Your task to perform on an android device: Show me popular games on the Play Store Image 0: 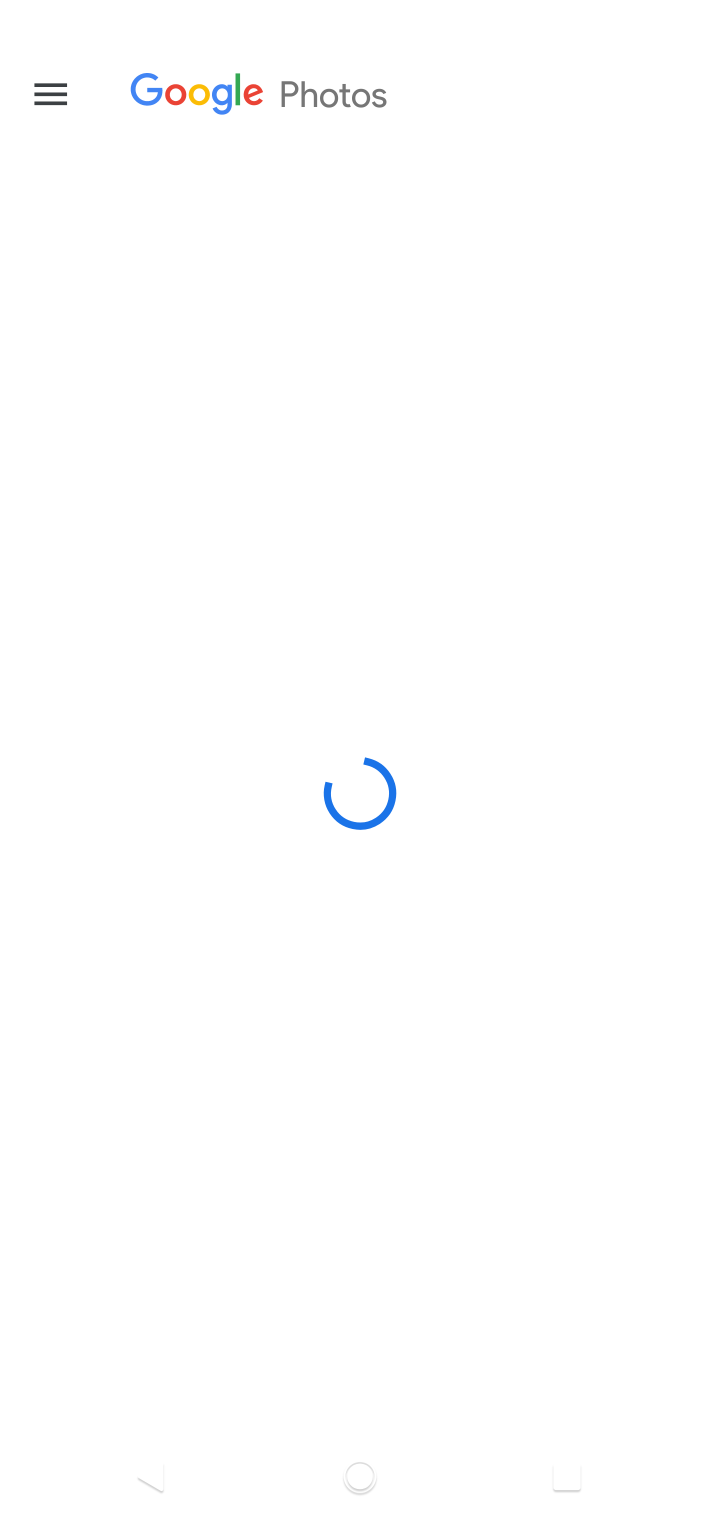
Step 0: press home button
Your task to perform on an android device: Show me popular games on the Play Store Image 1: 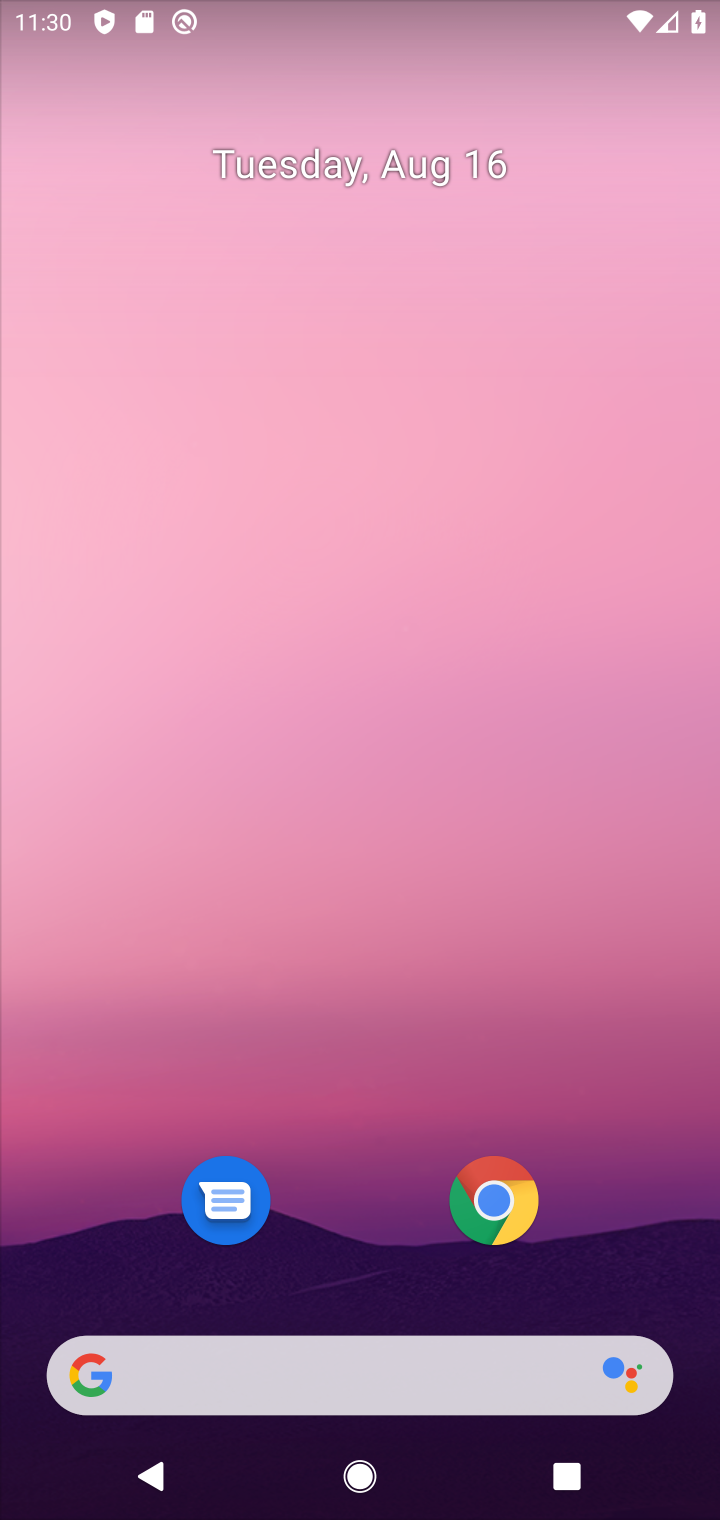
Step 1: drag from (312, 1358) to (396, 420)
Your task to perform on an android device: Show me popular games on the Play Store Image 2: 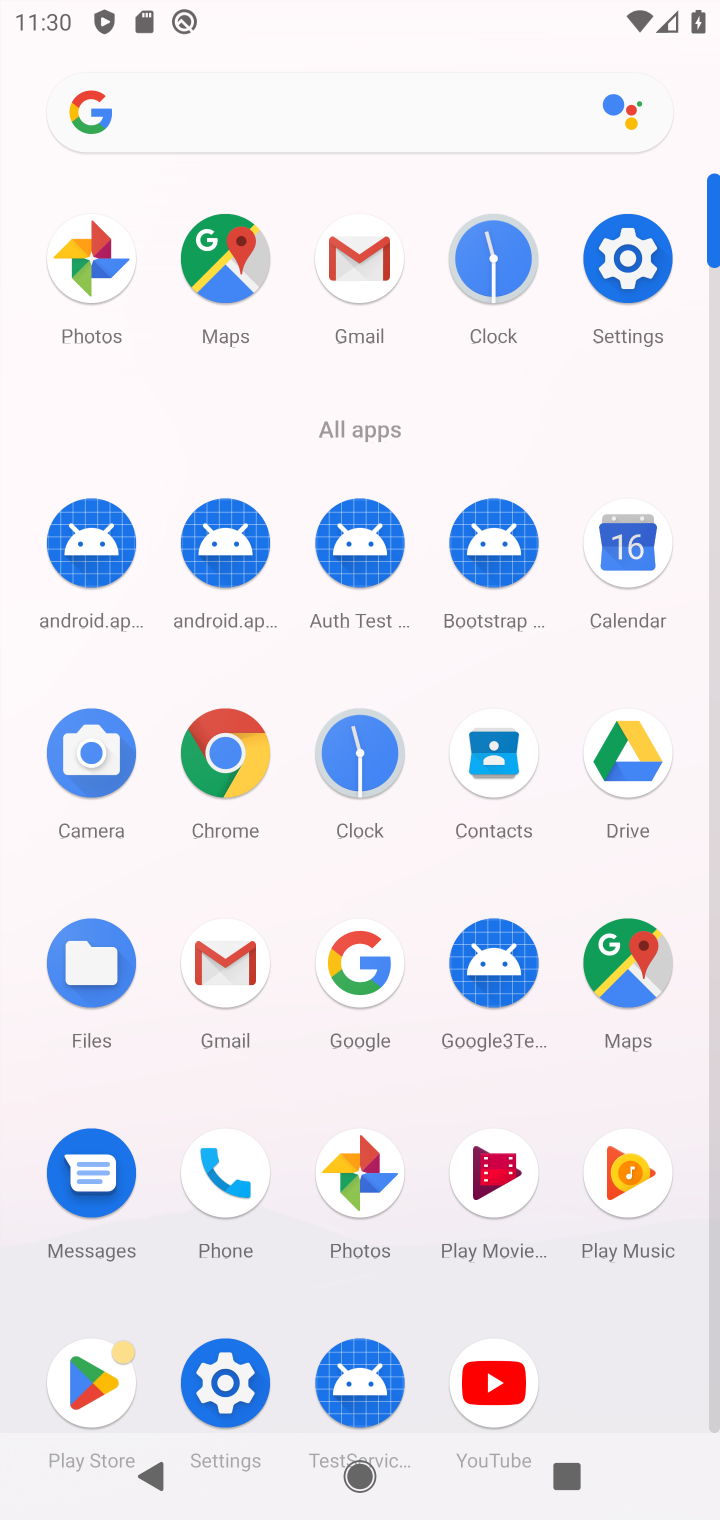
Step 2: click (110, 1369)
Your task to perform on an android device: Show me popular games on the Play Store Image 3: 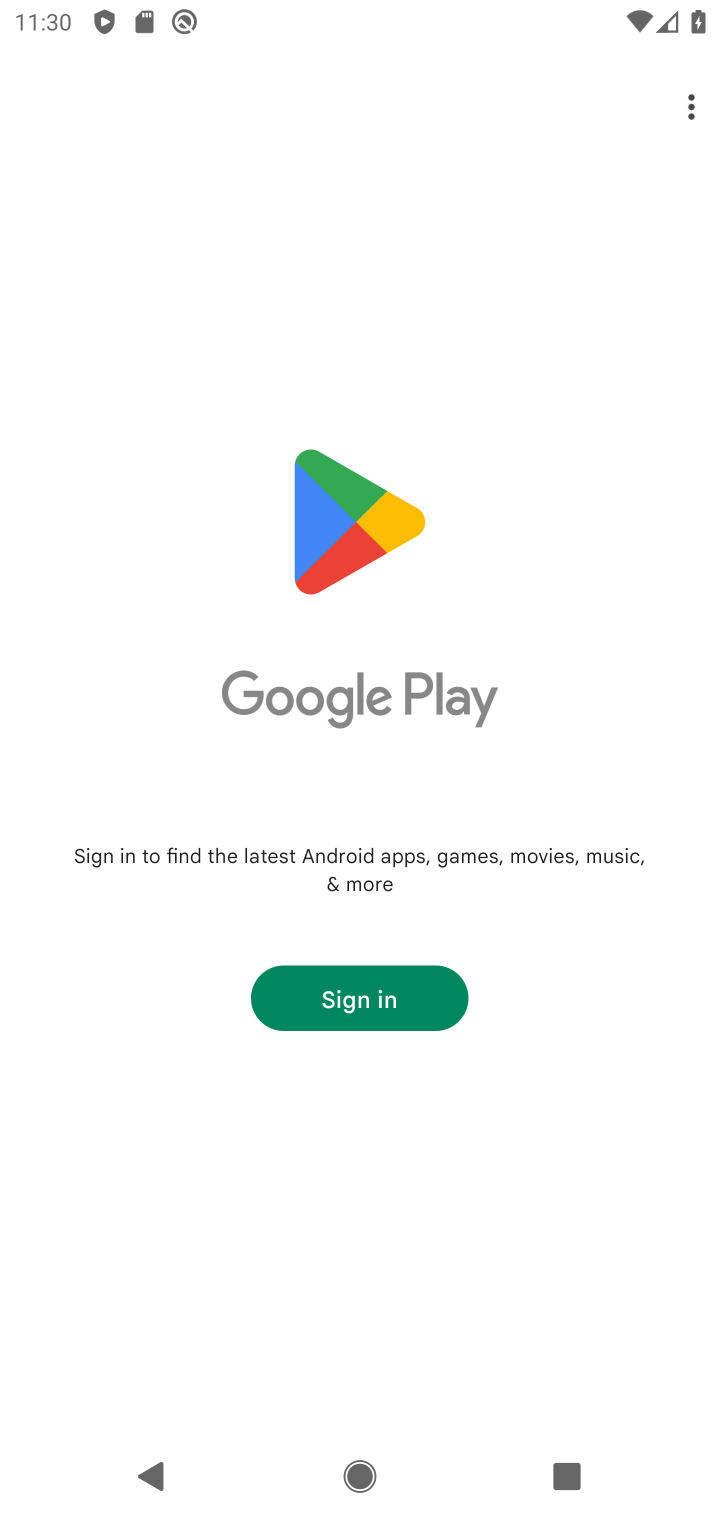
Step 3: task complete